Your task to perform on an android device: set default search engine in the chrome app Image 0: 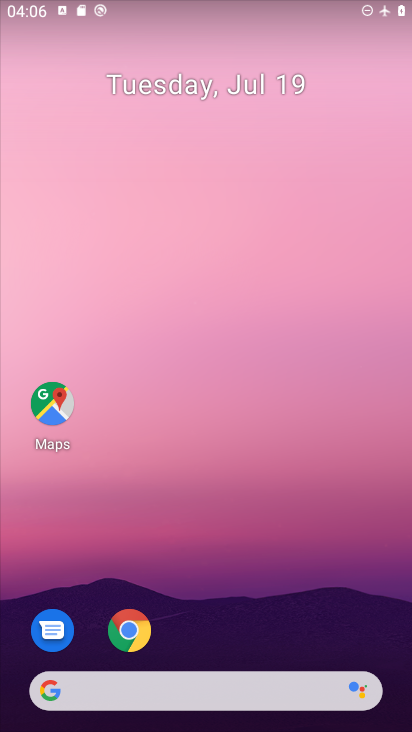
Step 0: click (130, 631)
Your task to perform on an android device: set default search engine in the chrome app Image 1: 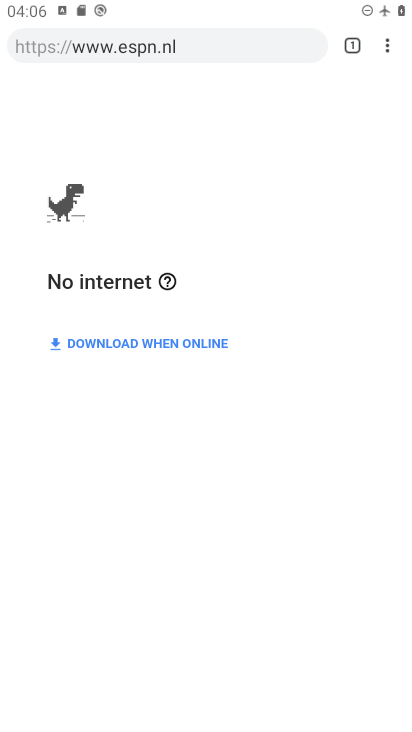
Step 1: click (386, 51)
Your task to perform on an android device: set default search engine in the chrome app Image 2: 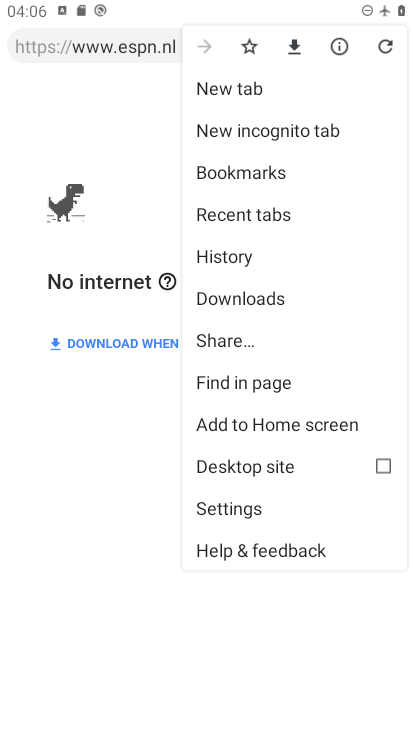
Step 2: click (240, 506)
Your task to perform on an android device: set default search engine in the chrome app Image 3: 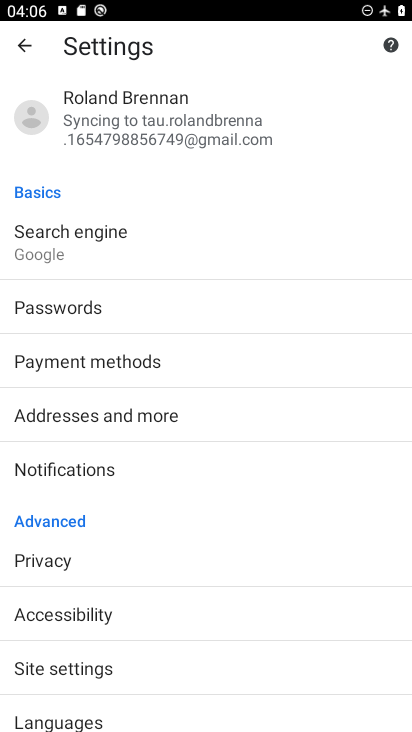
Step 3: click (47, 244)
Your task to perform on an android device: set default search engine in the chrome app Image 4: 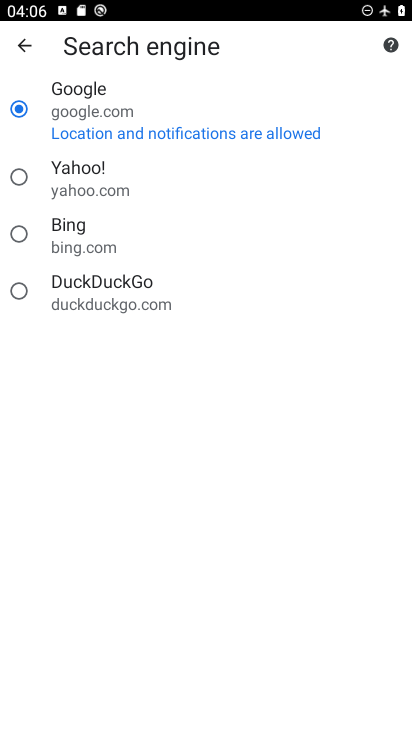
Step 4: click (21, 180)
Your task to perform on an android device: set default search engine in the chrome app Image 5: 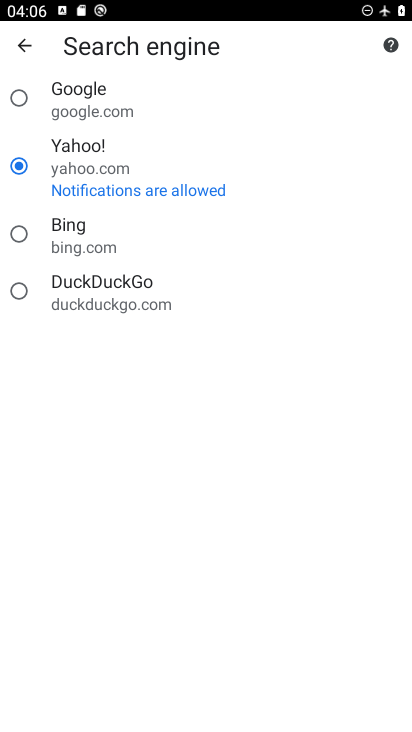
Step 5: task complete